Your task to perform on an android device: install app "Venmo" Image 0: 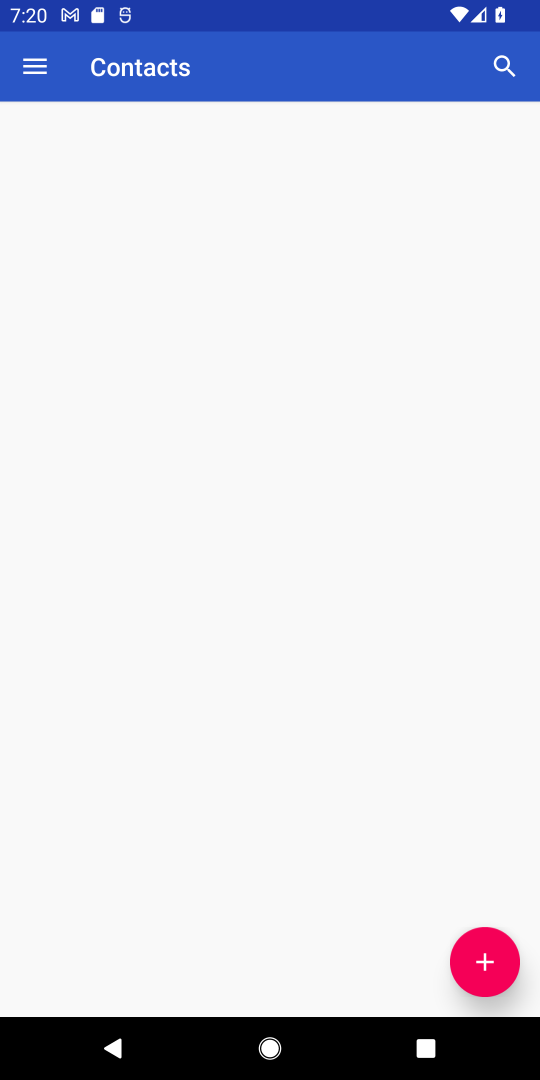
Step 0: press home button
Your task to perform on an android device: install app "Venmo" Image 1: 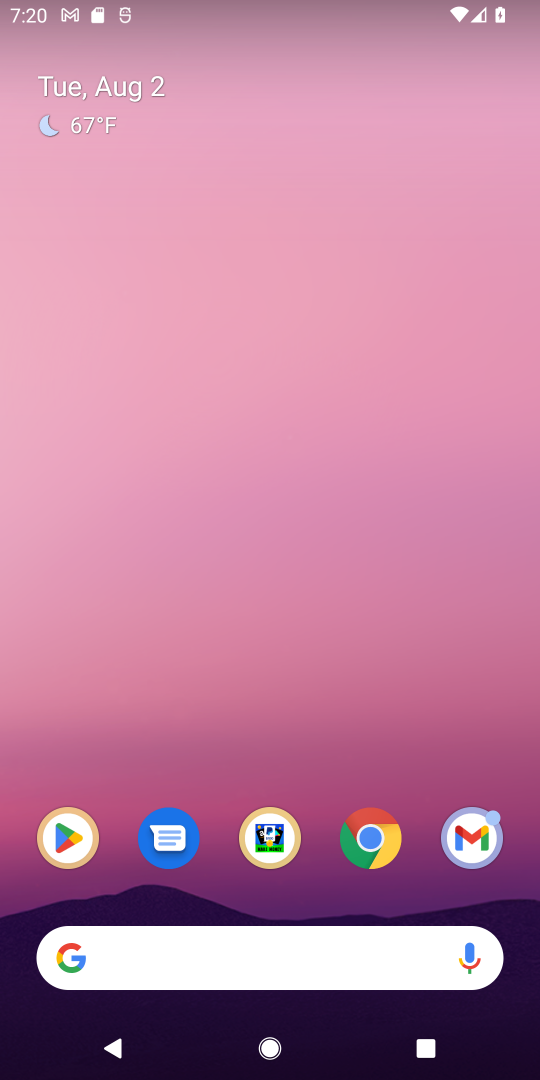
Step 1: click (72, 833)
Your task to perform on an android device: install app "Venmo" Image 2: 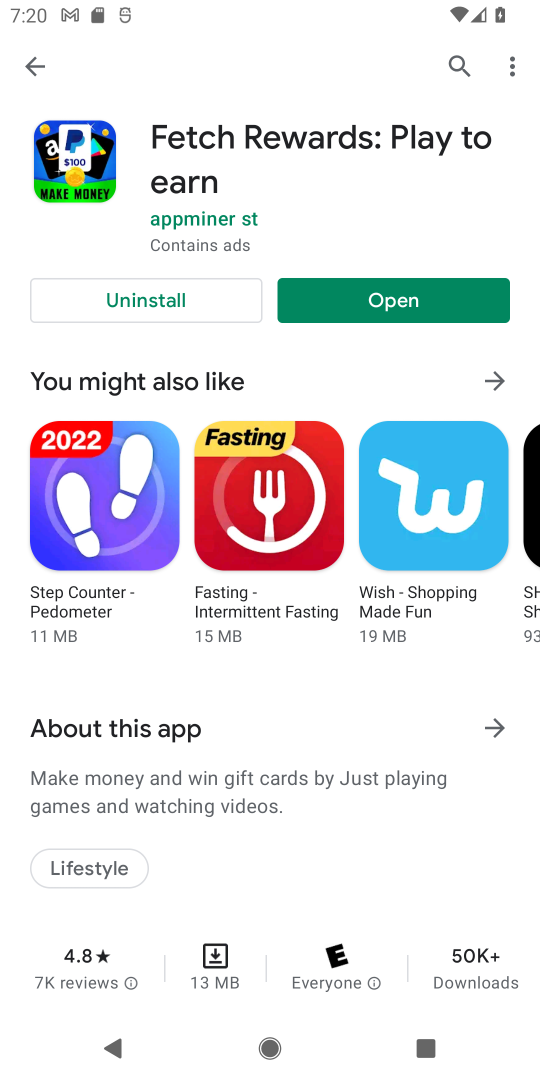
Step 2: task complete